Your task to perform on an android device: Empty the shopping cart on walmart.com. Add "razer blade" to the cart on walmart.com, then select checkout. Image 0: 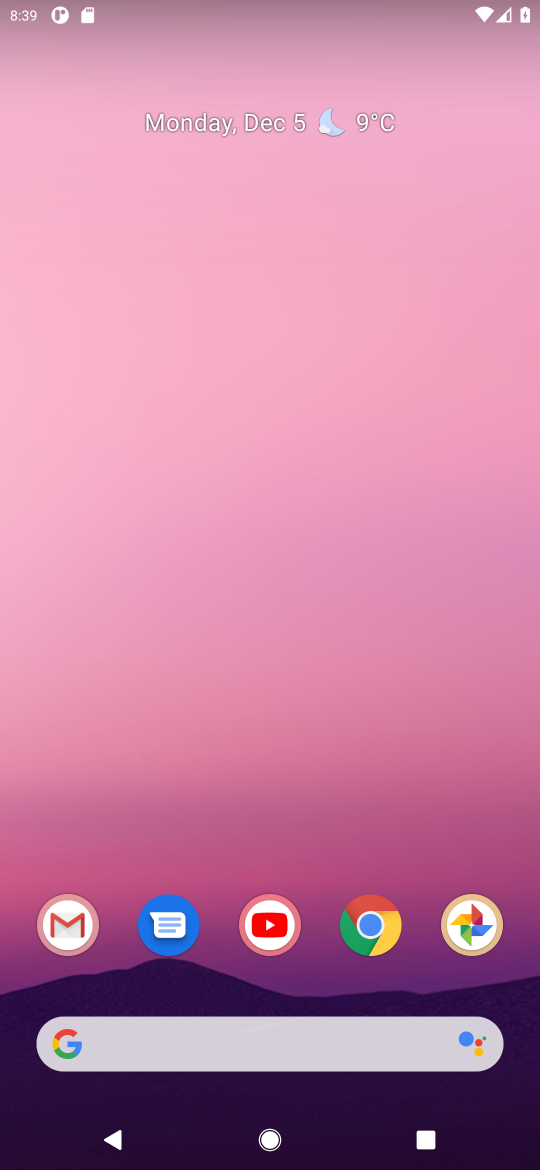
Step 0: click (371, 934)
Your task to perform on an android device: Empty the shopping cart on walmart.com. Add "razer blade" to the cart on walmart.com, then select checkout. Image 1: 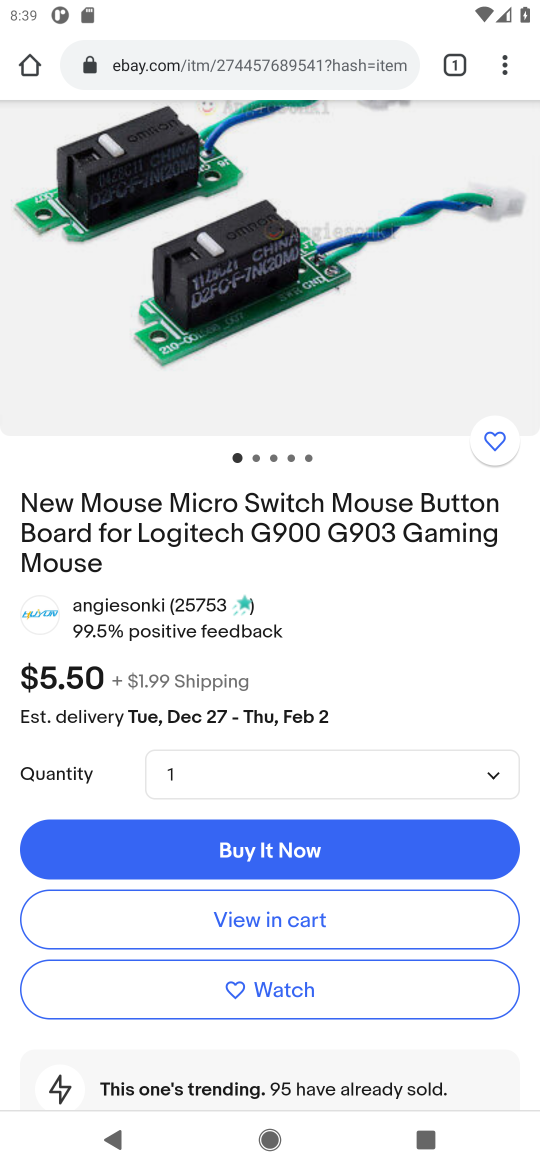
Step 1: click (192, 59)
Your task to perform on an android device: Empty the shopping cart on walmart.com. Add "razer blade" to the cart on walmart.com, then select checkout. Image 2: 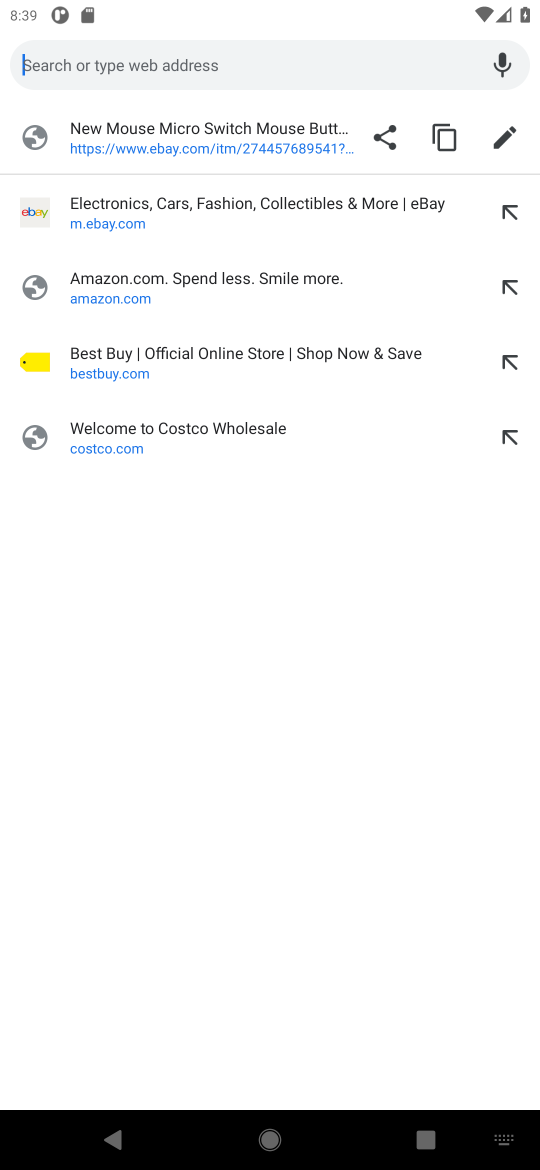
Step 2: type "walmart.com"
Your task to perform on an android device: Empty the shopping cart on walmart.com. Add "razer blade" to the cart on walmart.com, then select checkout. Image 3: 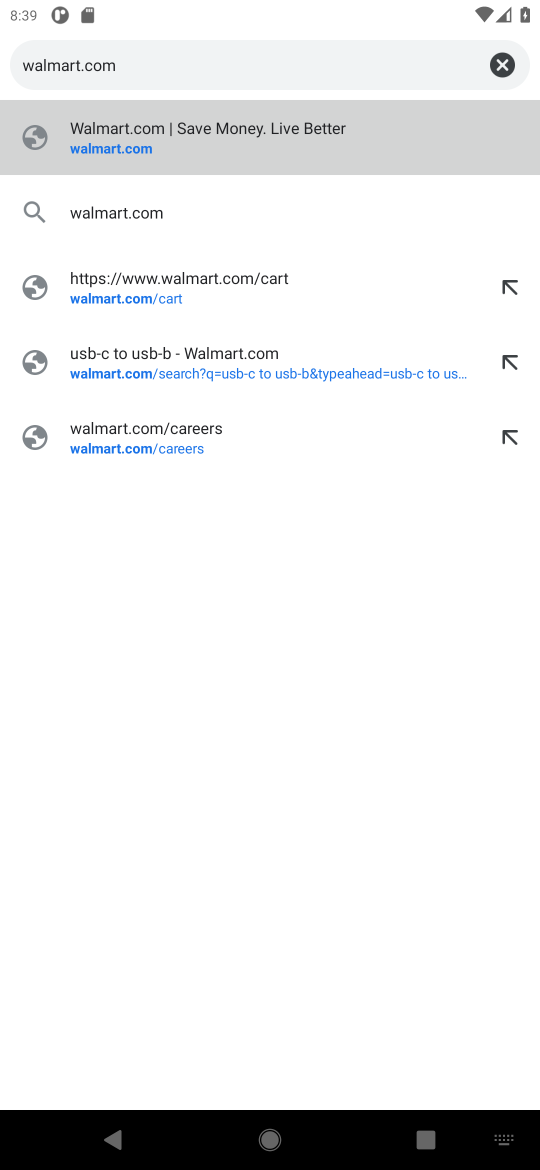
Step 3: click (95, 151)
Your task to perform on an android device: Empty the shopping cart on walmart.com. Add "razer blade" to the cart on walmart.com, then select checkout. Image 4: 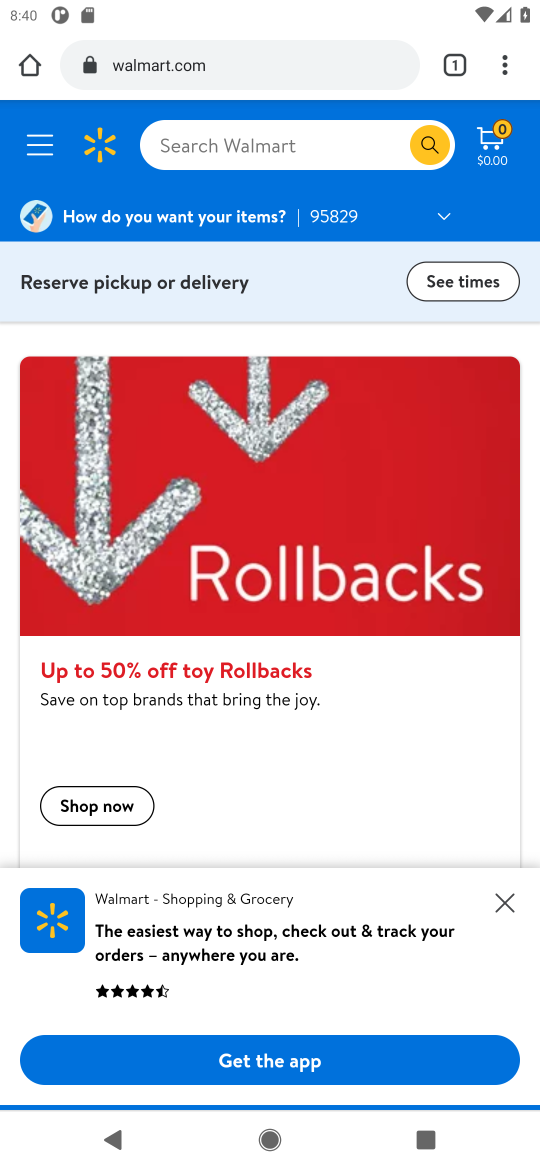
Step 4: click (491, 150)
Your task to perform on an android device: Empty the shopping cart on walmart.com. Add "razer blade" to the cart on walmart.com, then select checkout. Image 5: 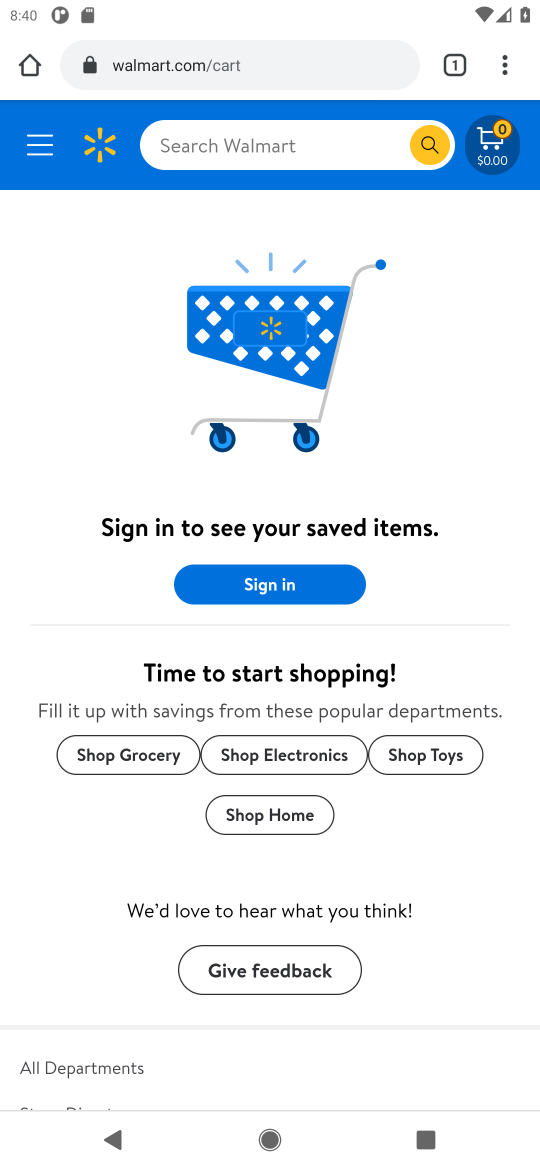
Step 5: click (202, 156)
Your task to perform on an android device: Empty the shopping cart on walmart.com. Add "razer blade" to the cart on walmart.com, then select checkout. Image 6: 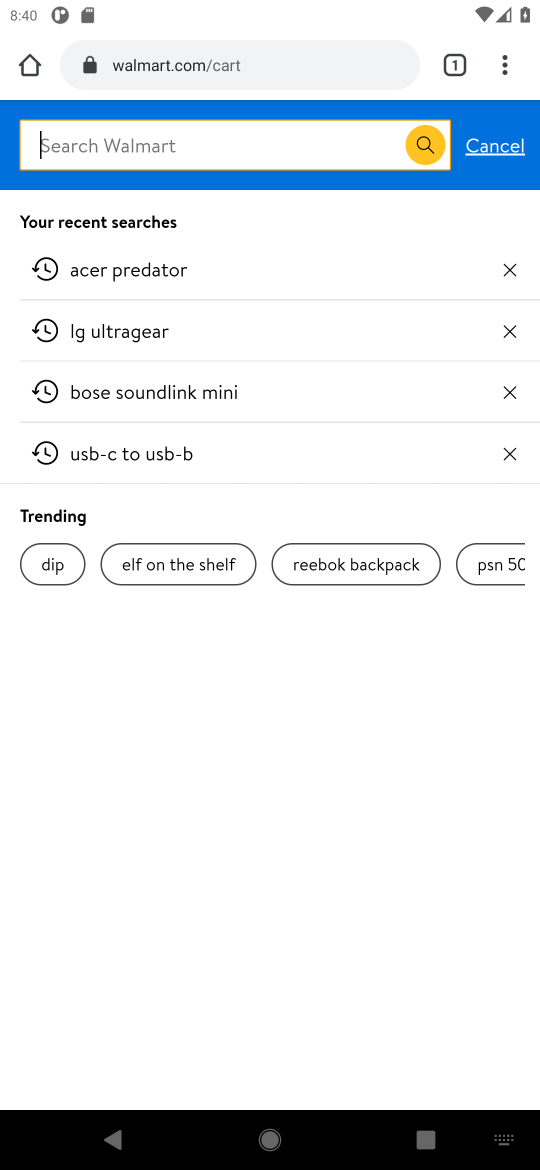
Step 6: type "razer blade"
Your task to perform on an android device: Empty the shopping cart on walmart.com. Add "razer blade" to the cart on walmart.com, then select checkout. Image 7: 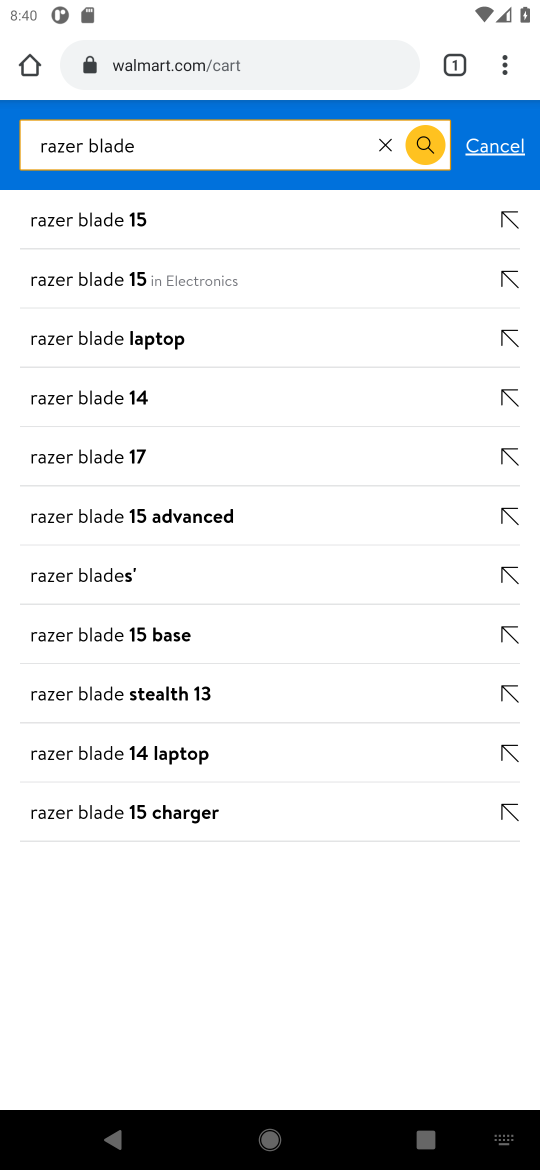
Step 7: click (88, 224)
Your task to perform on an android device: Empty the shopping cart on walmart.com. Add "razer blade" to the cart on walmart.com, then select checkout. Image 8: 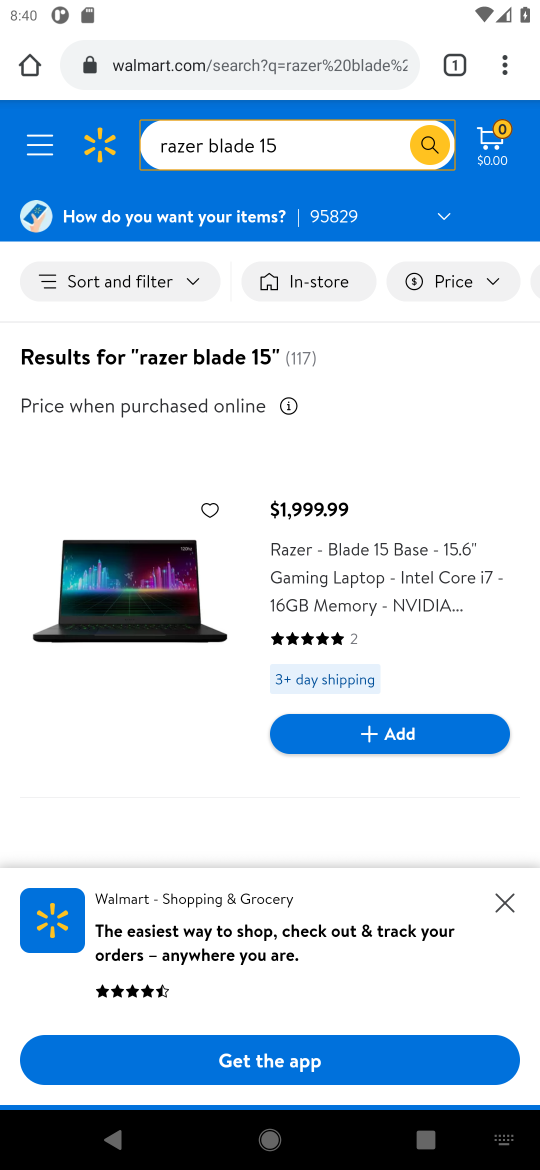
Step 8: click (387, 740)
Your task to perform on an android device: Empty the shopping cart on walmart.com. Add "razer blade" to the cart on walmart.com, then select checkout. Image 9: 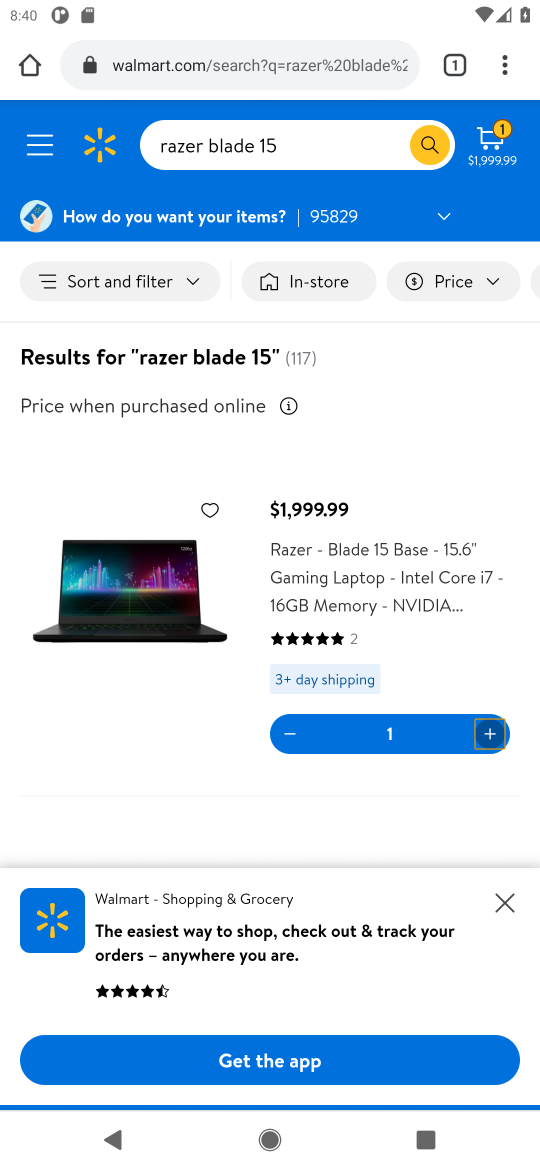
Step 9: click (498, 138)
Your task to perform on an android device: Empty the shopping cart on walmart.com. Add "razer blade" to the cart on walmart.com, then select checkout. Image 10: 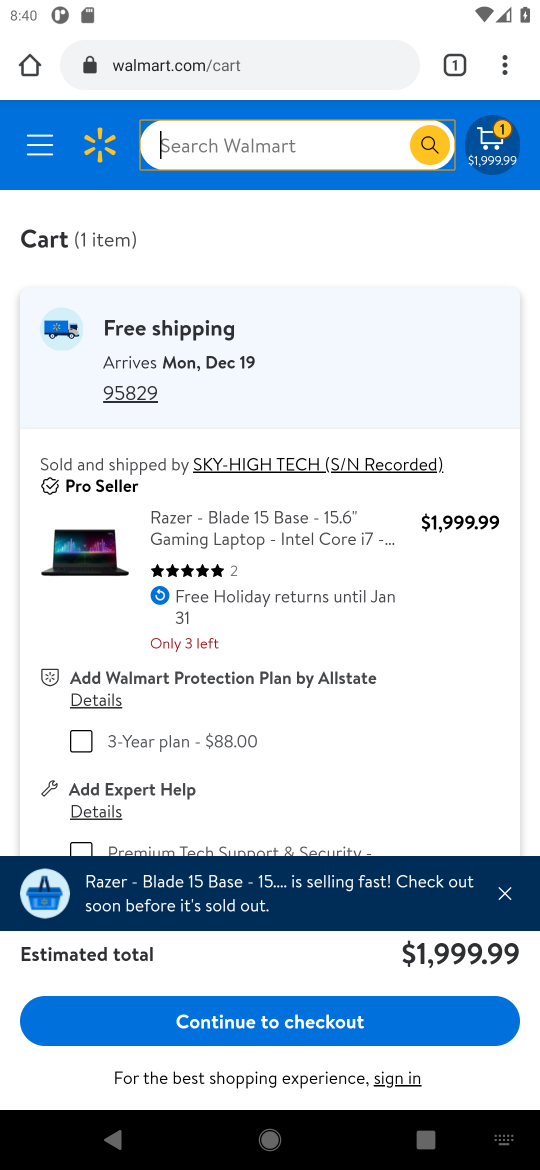
Step 10: click (241, 1029)
Your task to perform on an android device: Empty the shopping cart on walmart.com. Add "razer blade" to the cart on walmart.com, then select checkout. Image 11: 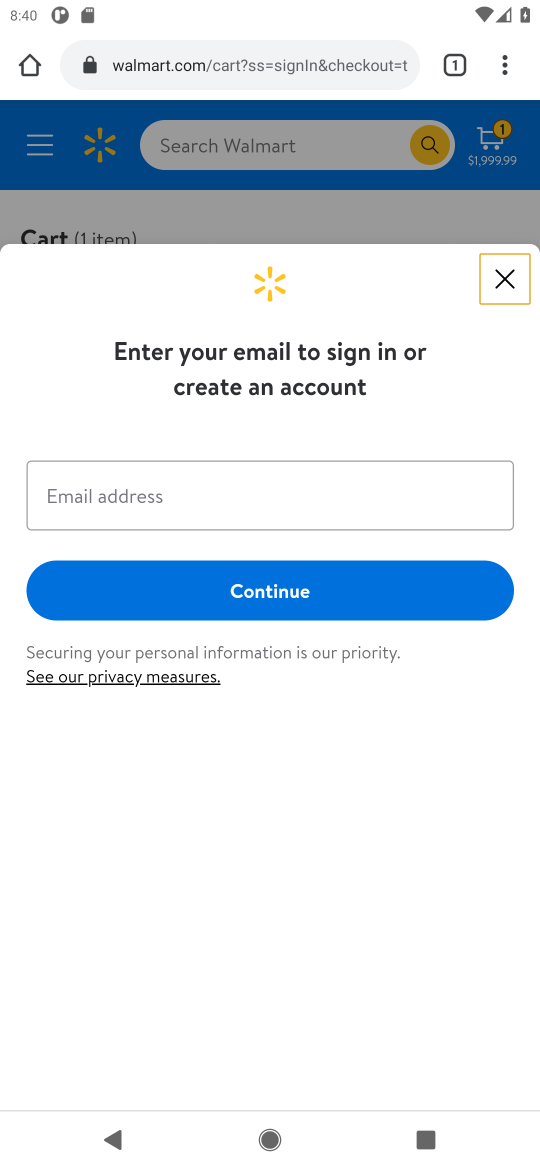
Step 11: task complete